Your task to perform on an android device: Open privacy settings Image 0: 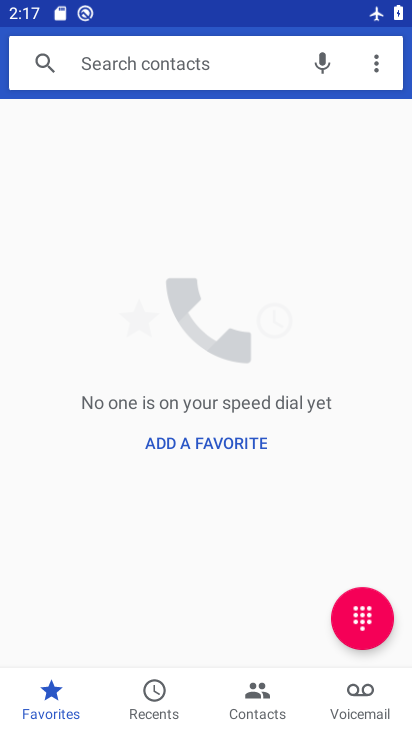
Step 0: press home button
Your task to perform on an android device: Open privacy settings Image 1: 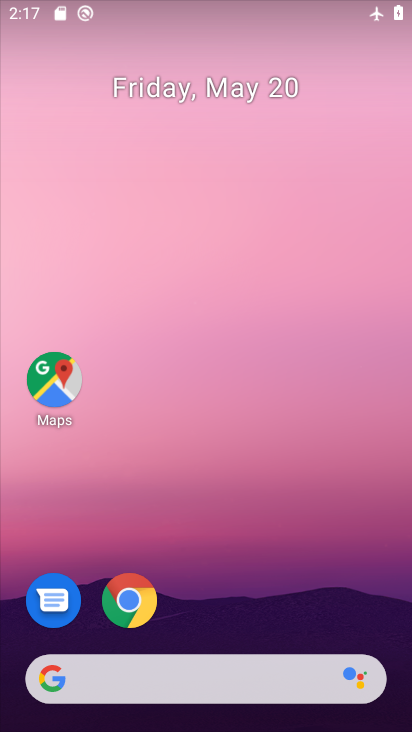
Step 1: drag from (249, 419) to (143, 46)
Your task to perform on an android device: Open privacy settings Image 2: 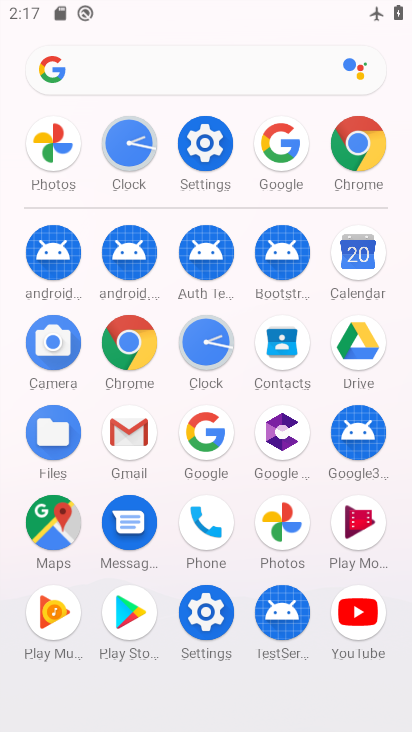
Step 2: click (198, 157)
Your task to perform on an android device: Open privacy settings Image 3: 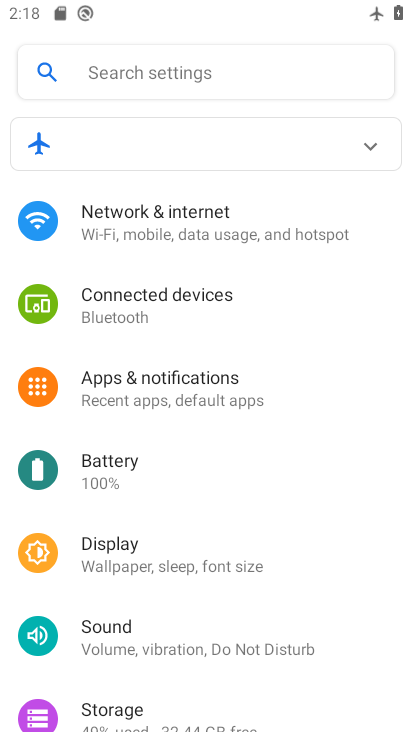
Step 3: drag from (234, 601) to (211, 136)
Your task to perform on an android device: Open privacy settings Image 4: 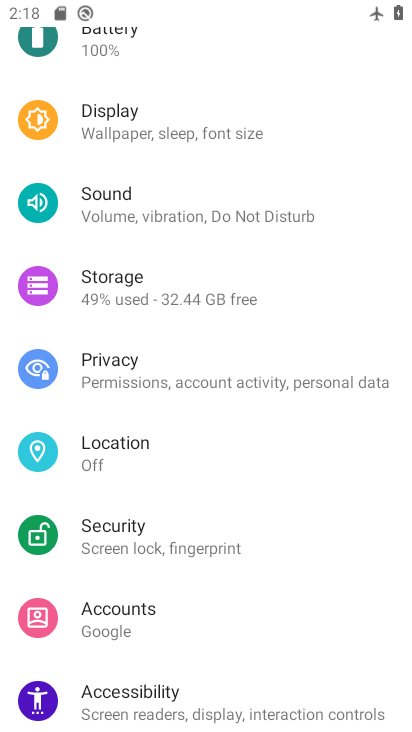
Step 4: click (186, 357)
Your task to perform on an android device: Open privacy settings Image 5: 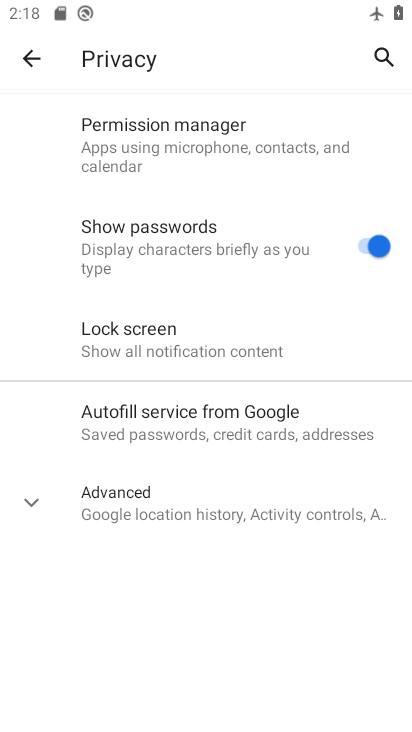
Step 5: task complete